Your task to perform on an android device: Go to display settings Image 0: 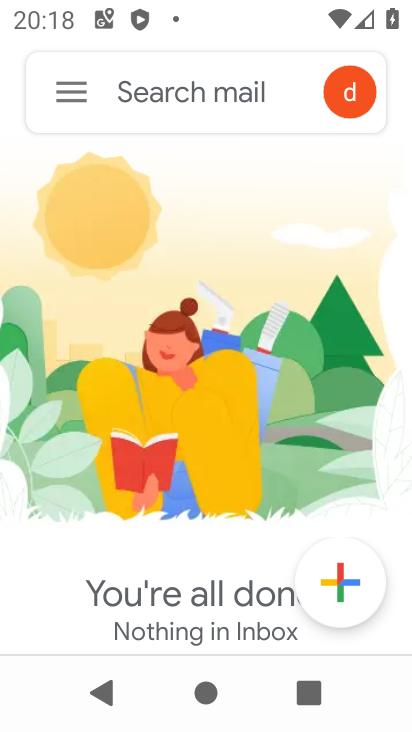
Step 0: press home button
Your task to perform on an android device: Go to display settings Image 1: 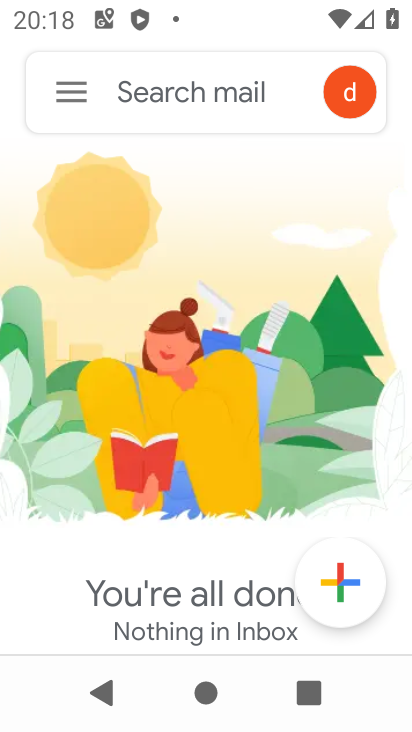
Step 1: drag from (176, 513) to (137, 0)
Your task to perform on an android device: Go to display settings Image 2: 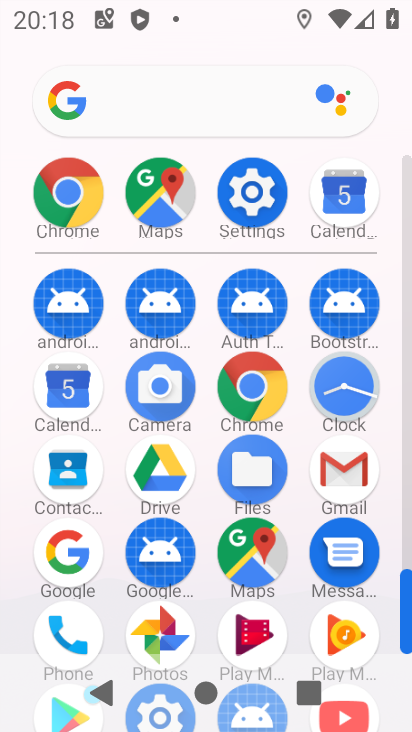
Step 2: click (264, 178)
Your task to perform on an android device: Go to display settings Image 3: 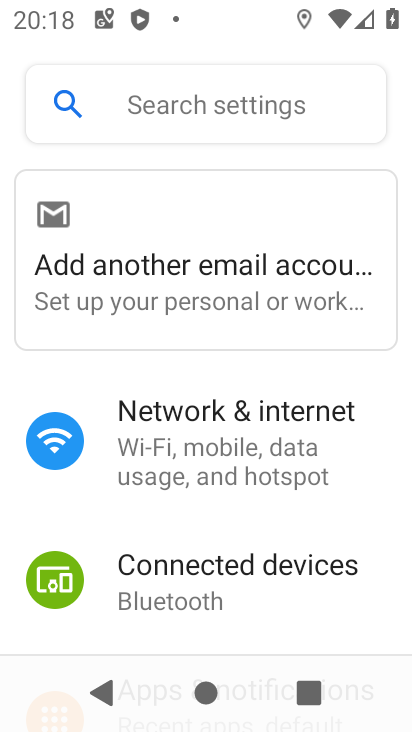
Step 3: drag from (263, 457) to (310, 88)
Your task to perform on an android device: Go to display settings Image 4: 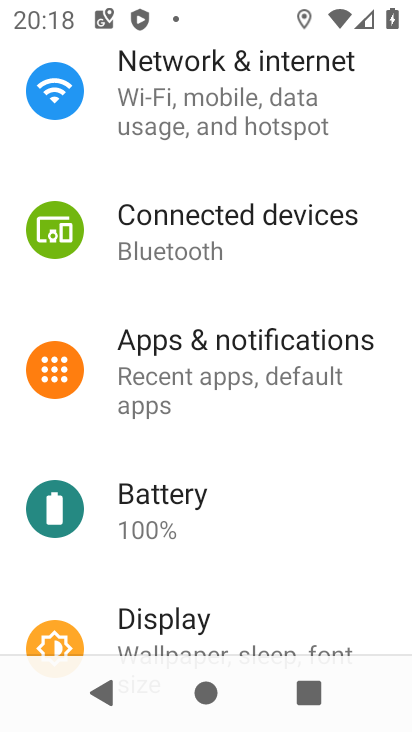
Step 4: drag from (218, 573) to (296, 192)
Your task to perform on an android device: Go to display settings Image 5: 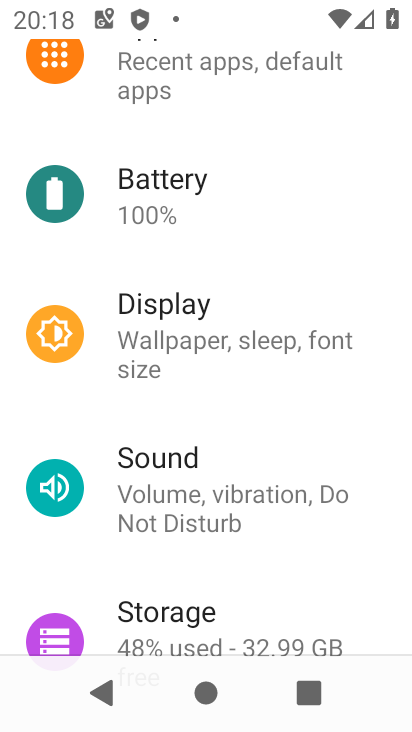
Step 5: click (167, 309)
Your task to perform on an android device: Go to display settings Image 6: 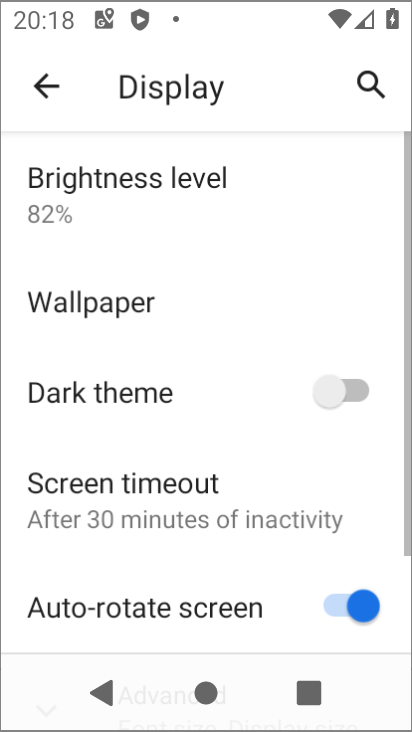
Step 6: task complete